Your task to perform on an android device: Search for Italian restaurants on Maps Image 0: 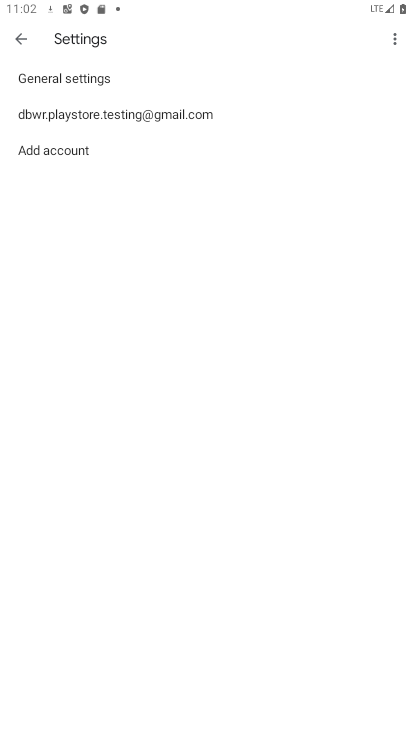
Step 0: press home button
Your task to perform on an android device: Search for Italian restaurants on Maps Image 1: 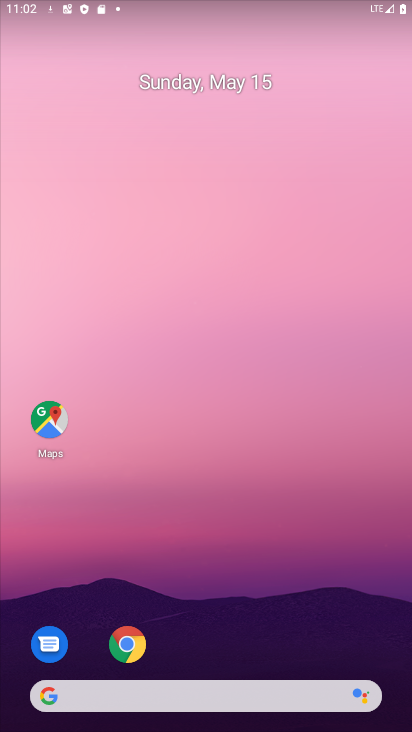
Step 1: drag from (201, 720) to (307, 236)
Your task to perform on an android device: Search for Italian restaurants on Maps Image 2: 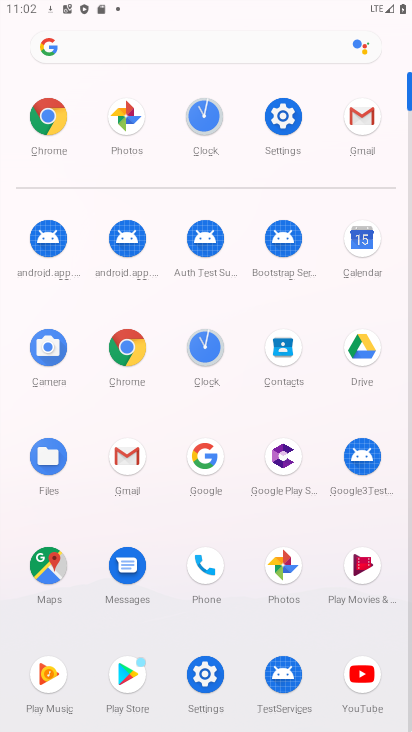
Step 2: click (57, 559)
Your task to perform on an android device: Search for Italian restaurants on Maps Image 3: 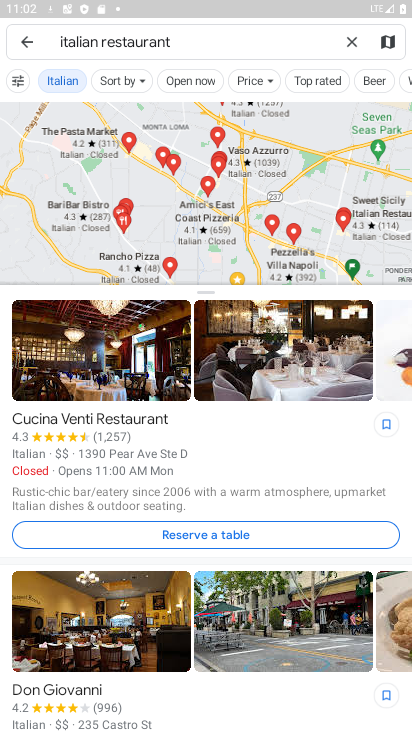
Step 3: click (250, 195)
Your task to perform on an android device: Search for Italian restaurants on Maps Image 4: 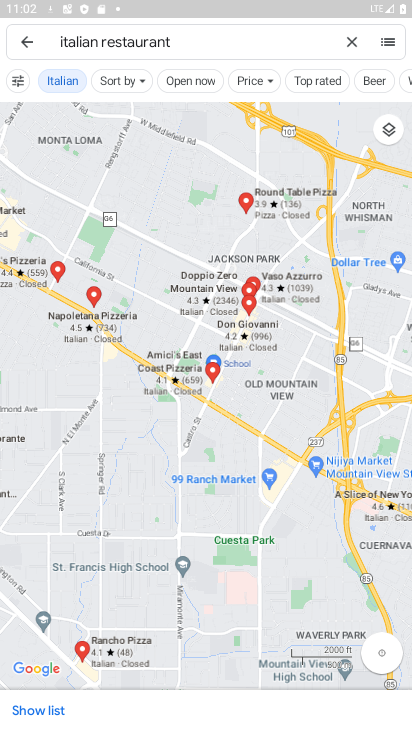
Step 4: task complete